Your task to perform on an android device: change alarm snooze length Image 0: 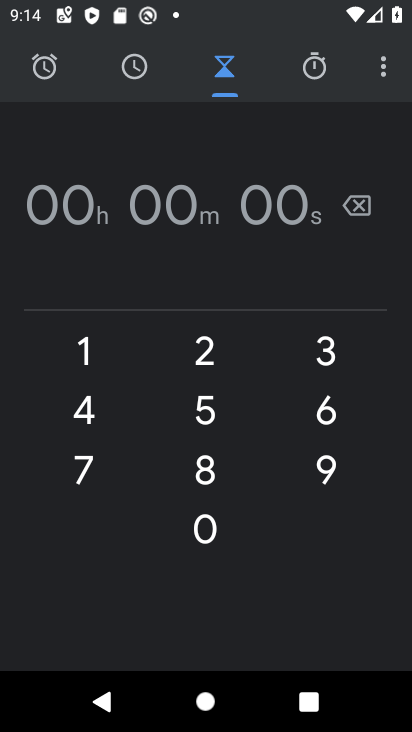
Step 0: click (382, 73)
Your task to perform on an android device: change alarm snooze length Image 1: 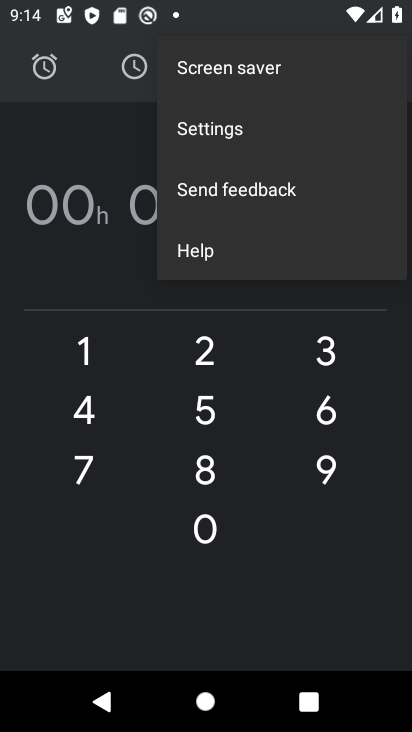
Step 1: click (303, 122)
Your task to perform on an android device: change alarm snooze length Image 2: 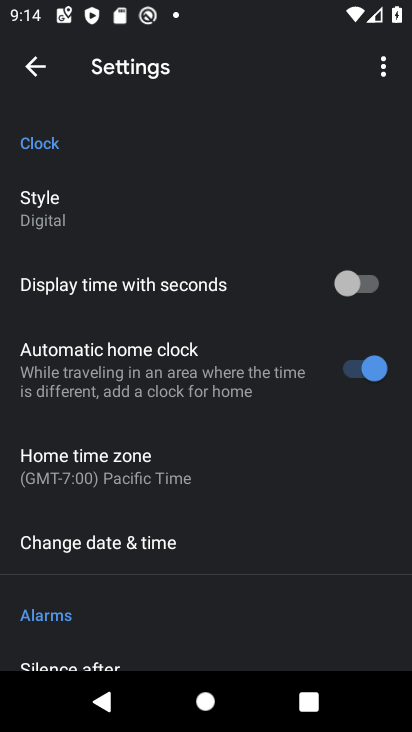
Step 2: drag from (287, 491) to (318, 102)
Your task to perform on an android device: change alarm snooze length Image 3: 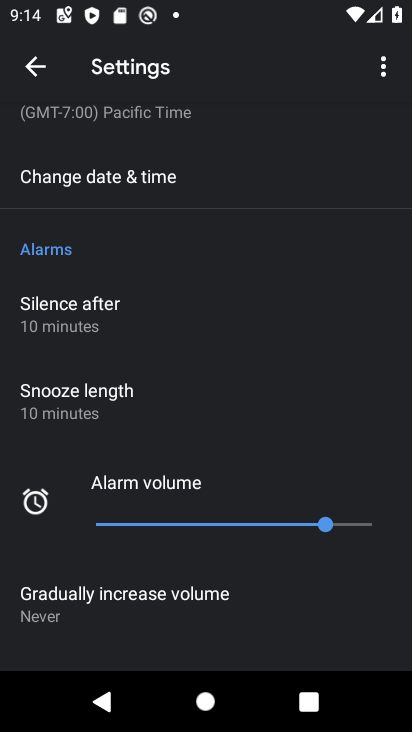
Step 3: click (141, 396)
Your task to perform on an android device: change alarm snooze length Image 4: 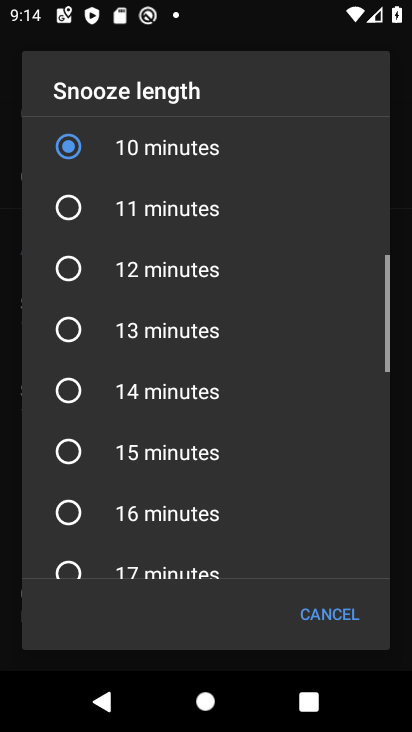
Step 4: click (150, 201)
Your task to perform on an android device: change alarm snooze length Image 5: 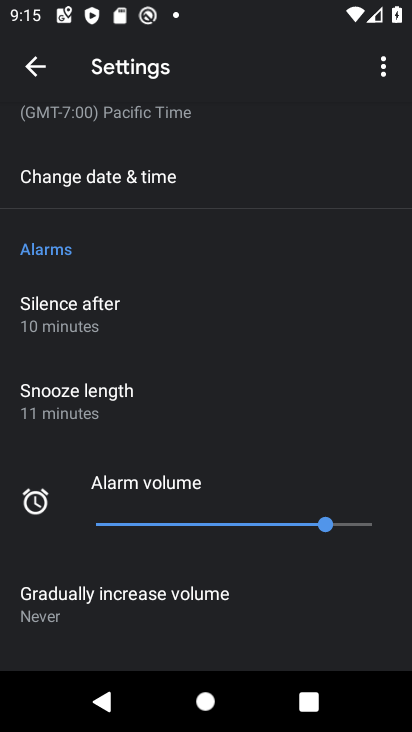
Step 5: task complete